Your task to perform on an android device: add a label to a message in the gmail app Image 0: 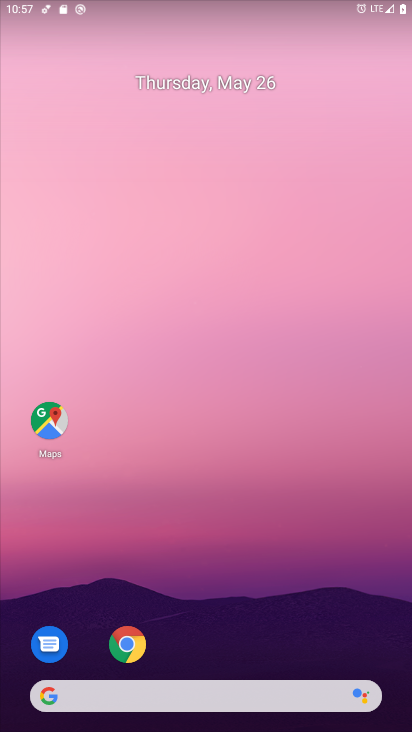
Step 0: drag from (376, 646) to (370, 293)
Your task to perform on an android device: add a label to a message in the gmail app Image 1: 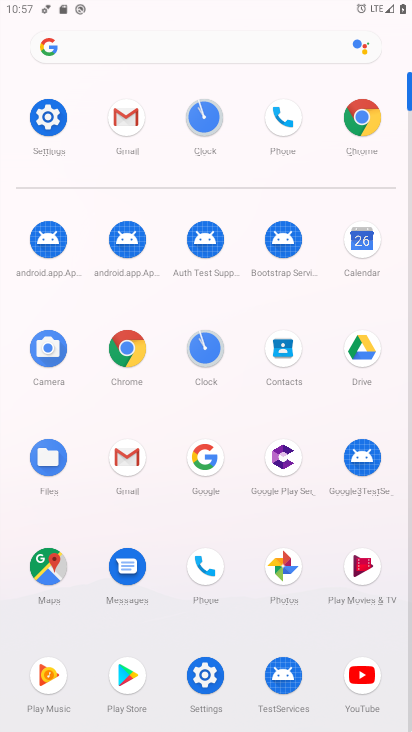
Step 1: click (124, 468)
Your task to perform on an android device: add a label to a message in the gmail app Image 2: 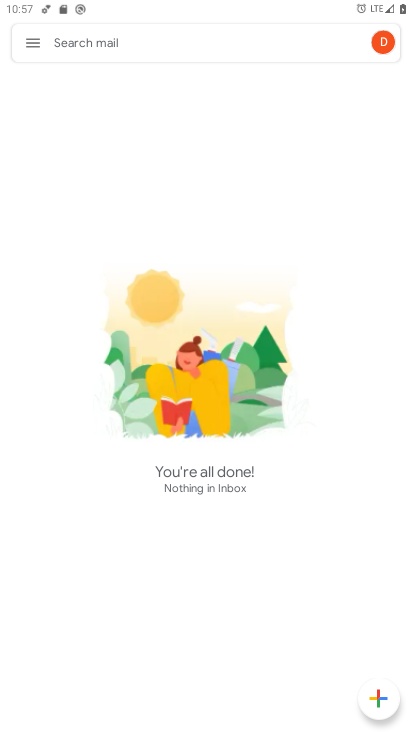
Step 2: task complete